Your task to perform on an android device: Open Reddit.com Image 0: 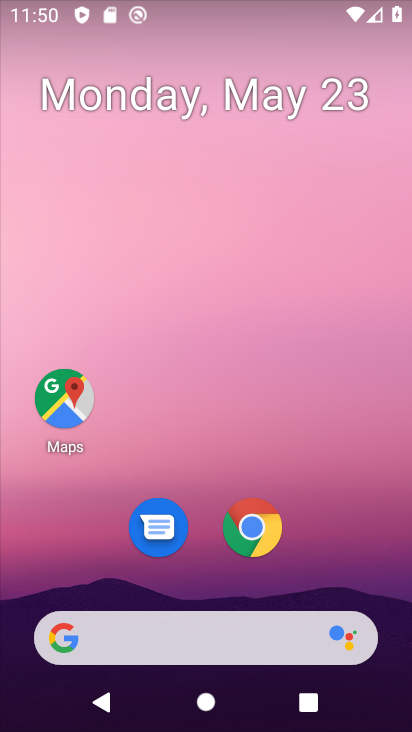
Step 0: press home button
Your task to perform on an android device: Open Reddit.com Image 1: 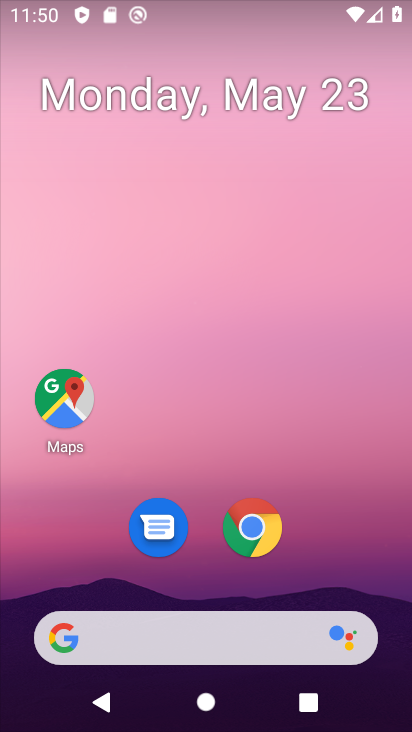
Step 1: click (254, 518)
Your task to perform on an android device: Open Reddit.com Image 2: 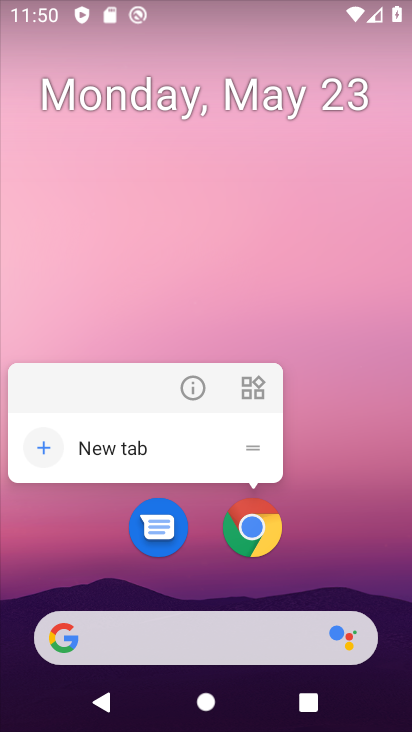
Step 2: click (258, 525)
Your task to perform on an android device: Open Reddit.com Image 3: 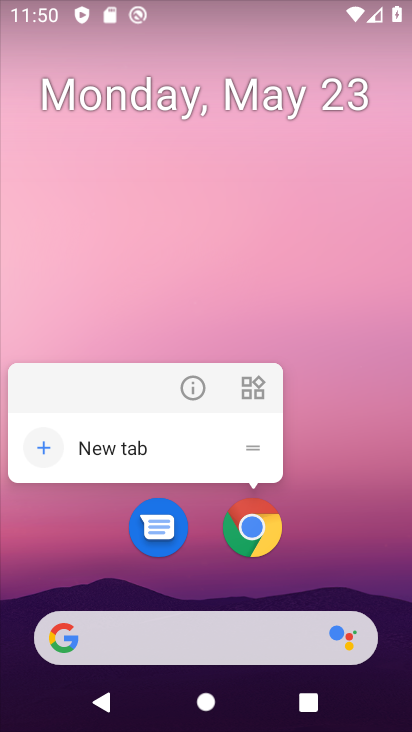
Step 3: click (258, 534)
Your task to perform on an android device: Open Reddit.com Image 4: 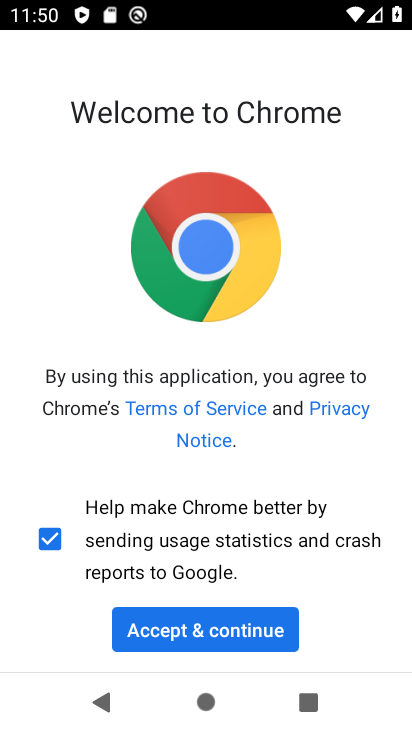
Step 4: click (201, 620)
Your task to perform on an android device: Open Reddit.com Image 5: 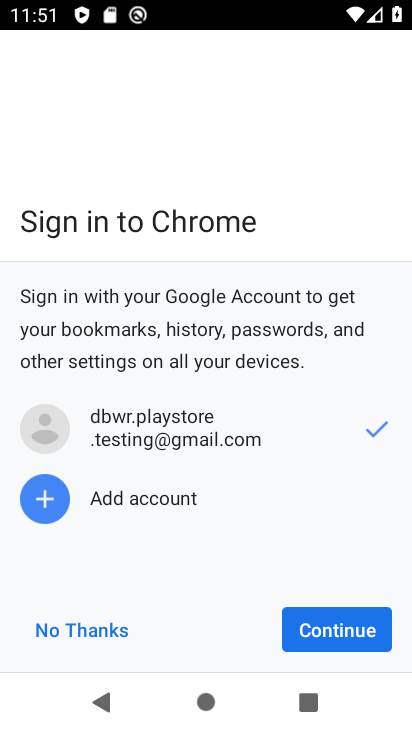
Step 5: click (339, 632)
Your task to perform on an android device: Open Reddit.com Image 6: 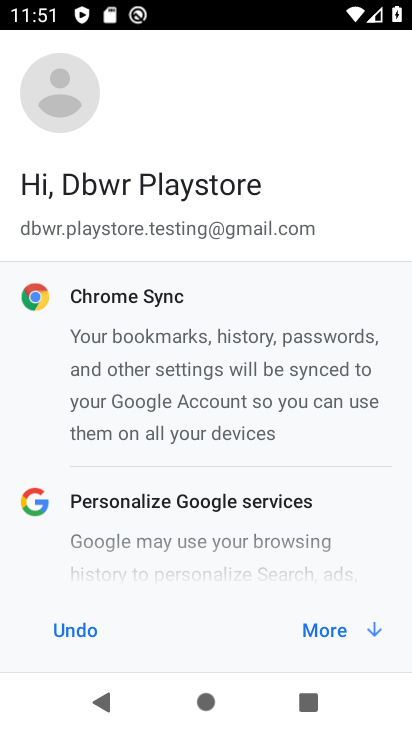
Step 6: click (339, 631)
Your task to perform on an android device: Open Reddit.com Image 7: 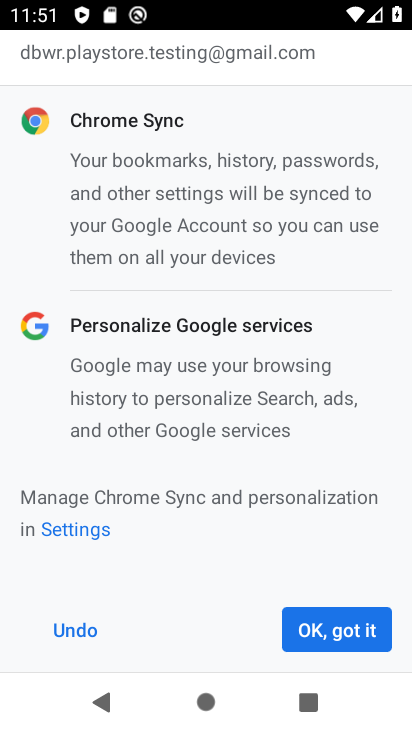
Step 7: click (339, 632)
Your task to perform on an android device: Open Reddit.com Image 8: 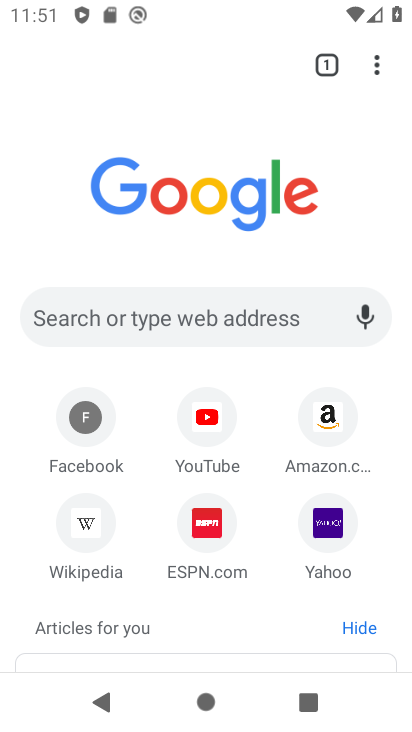
Step 8: click (160, 310)
Your task to perform on an android device: Open Reddit.com Image 9: 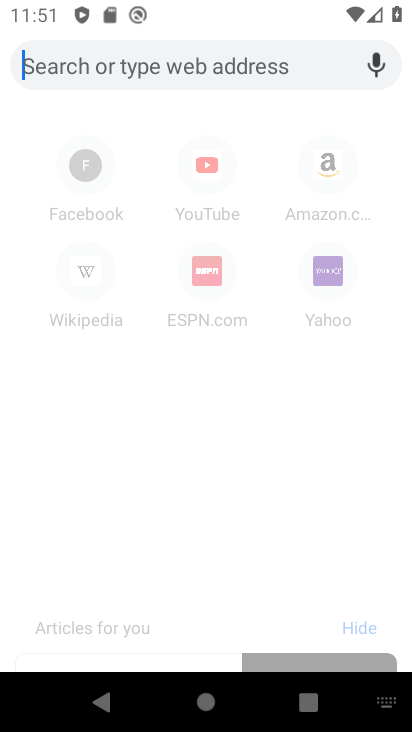
Step 9: type "reddit.com"
Your task to perform on an android device: Open Reddit.com Image 10: 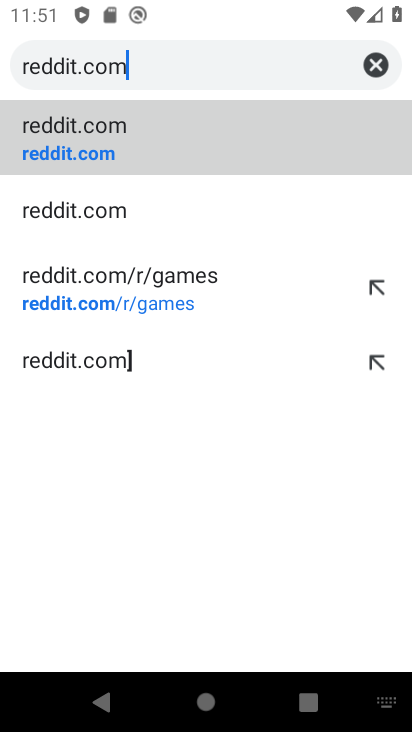
Step 10: click (98, 141)
Your task to perform on an android device: Open Reddit.com Image 11: 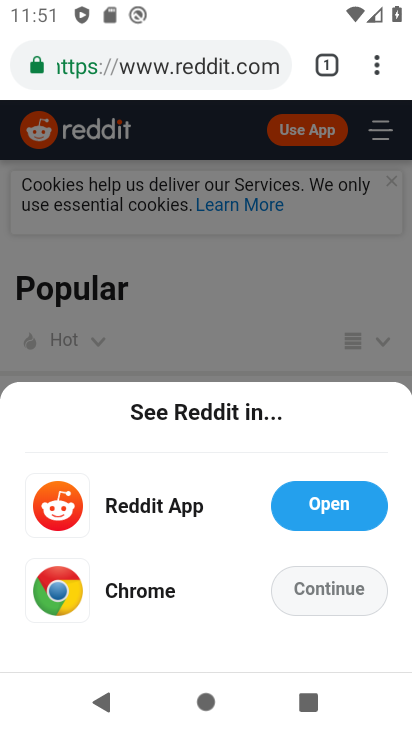
Step 11: task complete